Your task to perform on an android device: Is it going to rain this weekend? Image 0: 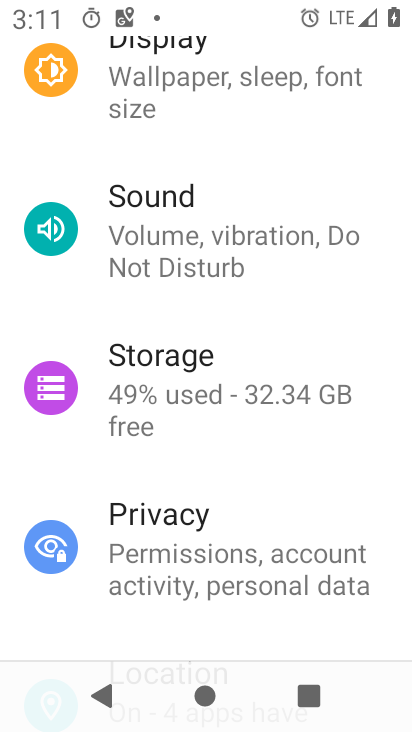
Step 0: press home button
Your task to perform on an android device: Is it going to rain this weekend? Image 1: 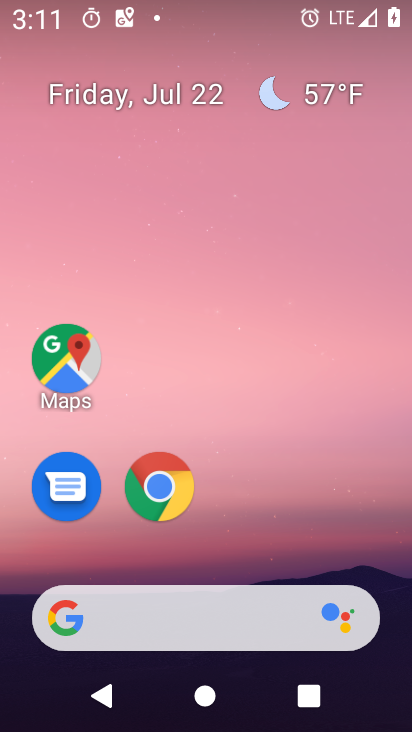
Step 1: click (224, 624)
Your task to perform on an android device: Is it going to rain this weekend? Image 2: 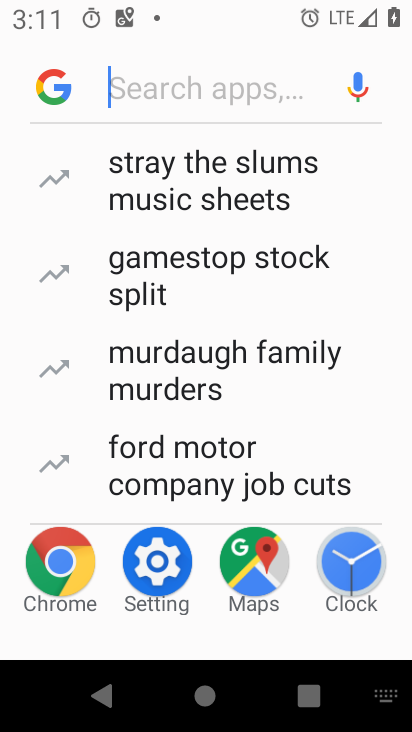
Step 2: type "Is it going to rain this weekend"
Your task to perform on an android device: Is it going to rain this weekend? Image 3: 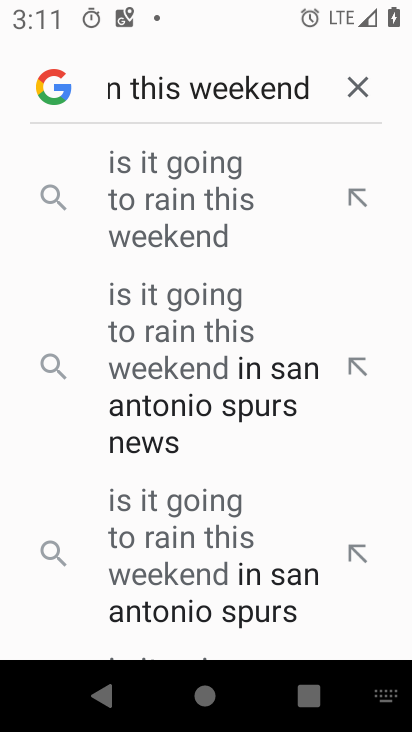
Step 3: click (153, 206)
Your task to perform on an android device: Is it going to rain this weekend? Image 4: 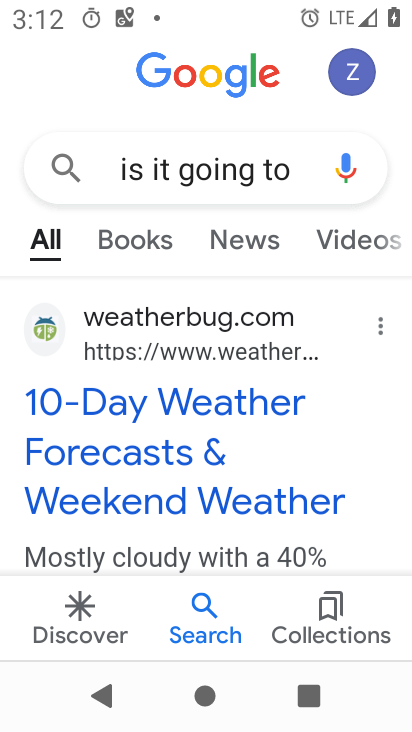
Step 4: click (239, 403)
Your task to perform on an android device: Is it going to rain this weekend? Image 5: 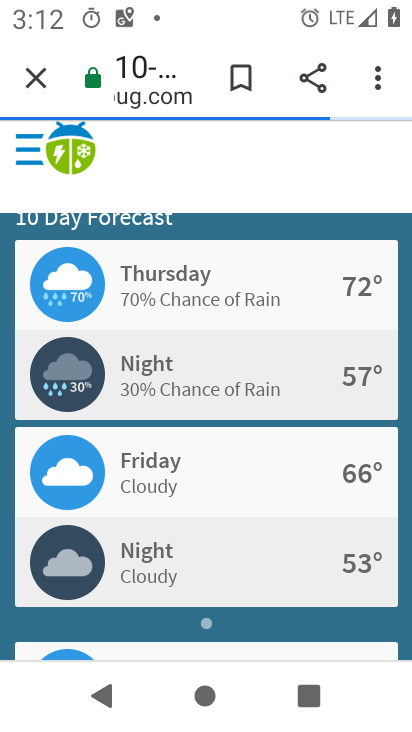
Step 5: drag from (270, 474) to (276, 294)
Your task to perform on an android device: Is it going to rain this weekend? Image 6: 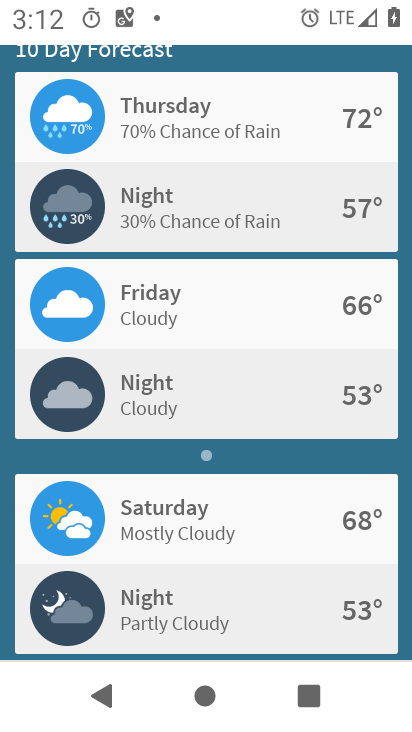
Step 6: drag from (293, 533) to (283, 324)
Your task to perform on an android device: Is it going to rain this weekend? Image 7: 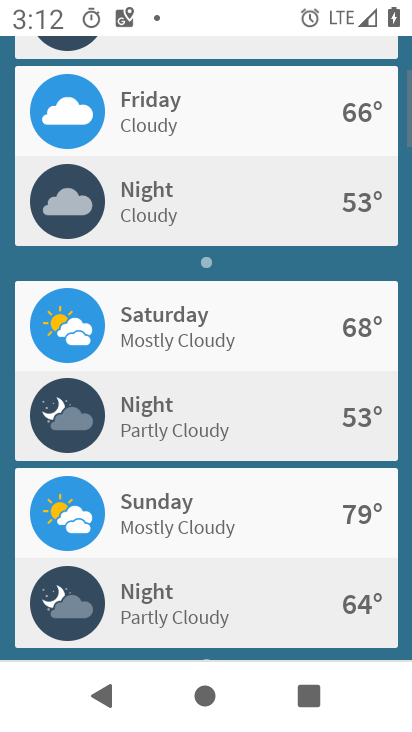
Step 7: click (235, 332)
Your task to perform on an android device: Is it going to rain this weekend? Image 8: 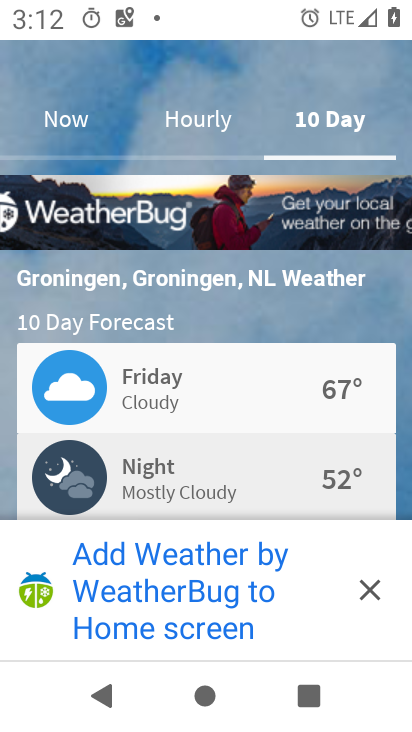
Step 8: task complete